Your task to perform on an android device: find snoozed emails in the gmail app Image 0: 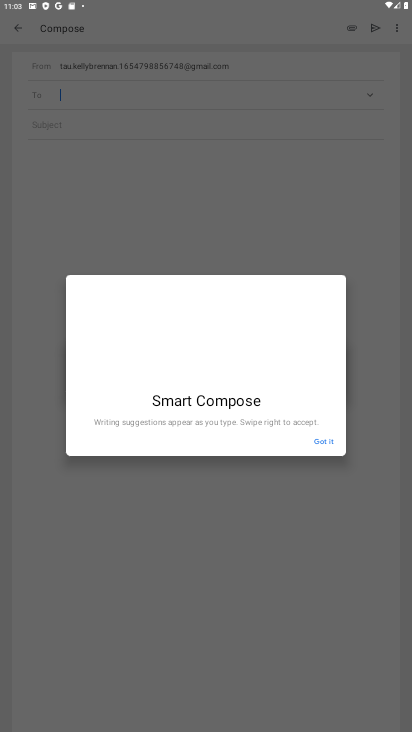
Step 0: press home button
Your task to perform on an android device: find snoozed emails in the gmail app Image 1: 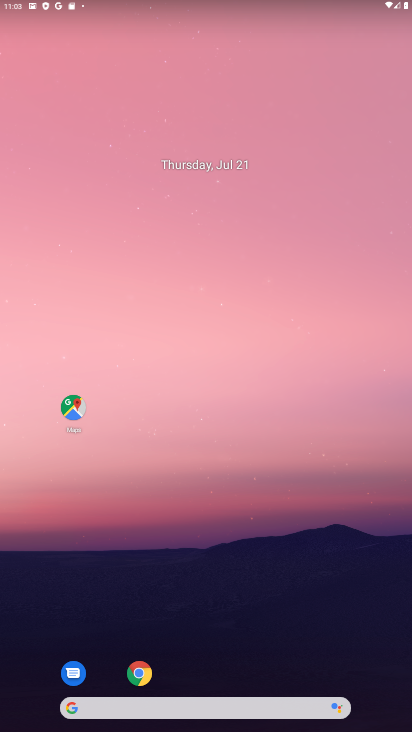
Step 1: drag from (220, 678) to (215, 60)
Your task to perform on an android device: find snoozed emails in the gmail app Image 2: 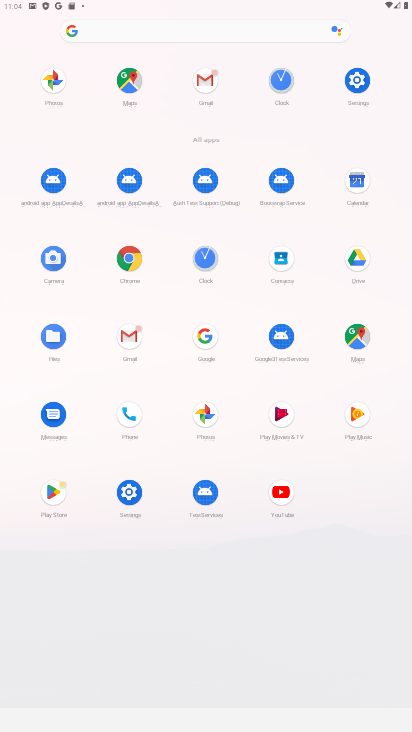
Step 2: click (125, 334)
Your task to perform on an android device: find snoozed emails in the gmail app Image 3: 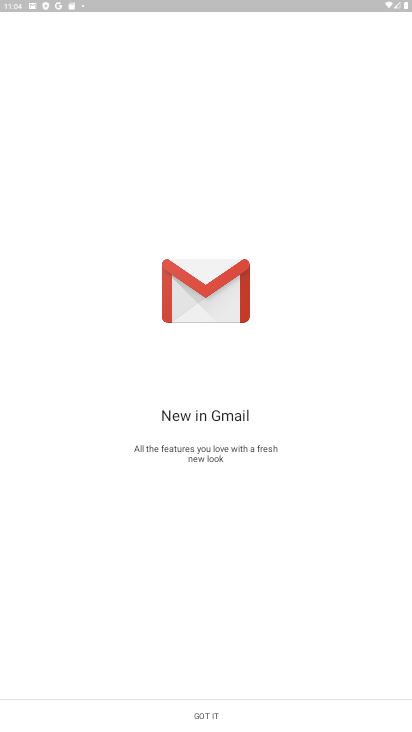
Step 3: click (203, 711)
Your task to perform on an android device: find snoozed emails in the gmail app Image 4: 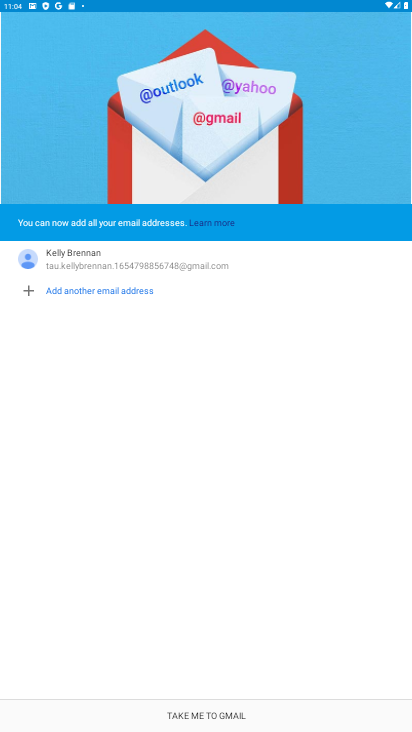
Step 4: click (196, 716)
Your task to perform on an android device: find snoozed emails in the gmail app Image 5: 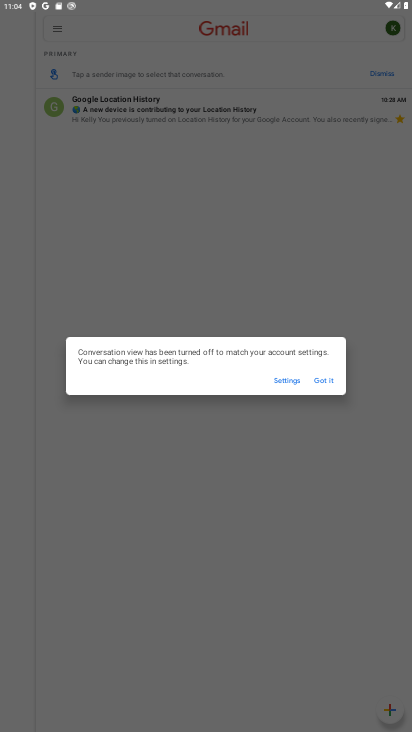
Step 5: click (318, 385)
Your task to perform on an android device: find snoozed emails in the gmail app Image 6: 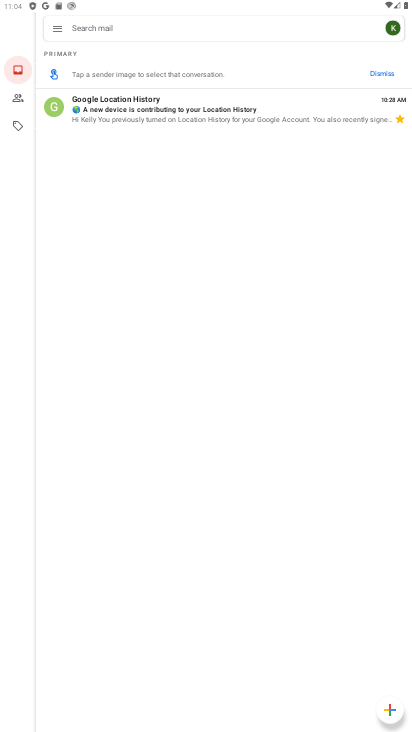
Step 6: click (53, 24)
Your task to perform on an android device: find snoozed emails in the gmail app Image 7: 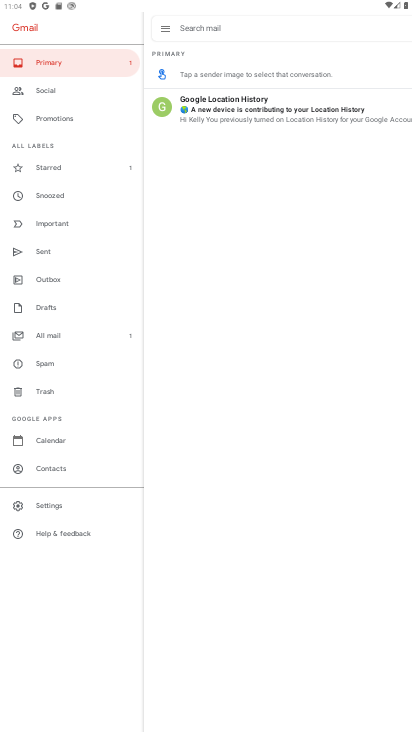
Step 7: click (59, 196)
Your task to perform on an android device: find snoozed emails in the gmail app Image 8: 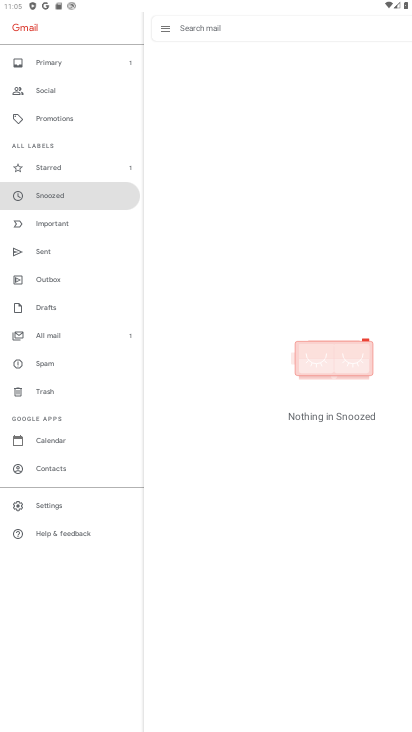
Step 8: task complete